Your task to perform on an android device: Go to eBay Image 0: 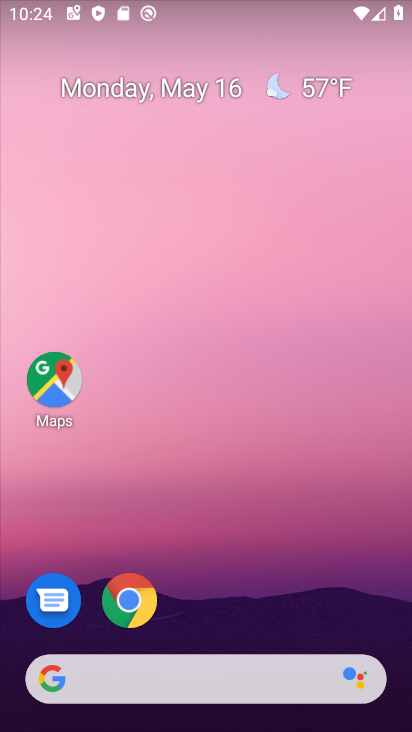
Step 0: drag from (222, 538) to (226, 89)
Your task to perform on an android device: Go to eBay Image 1: 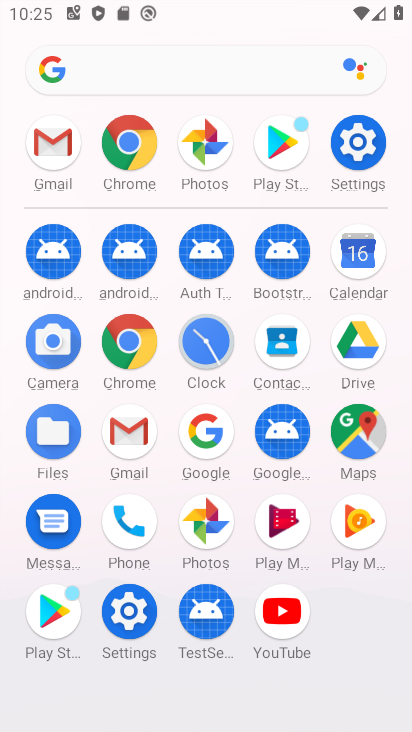
Step 1: click (102, 145)
Your task to perform on an android device: Go to eBay Image 2: 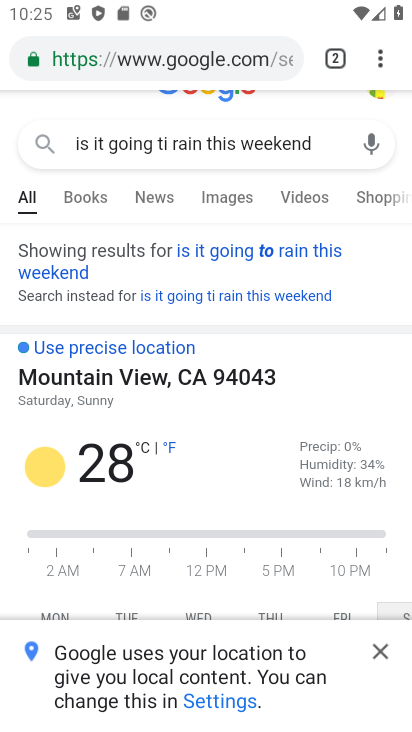
Step 2: click (246, 51)
Your task to perform on an android device: Go to eBay Image 3: 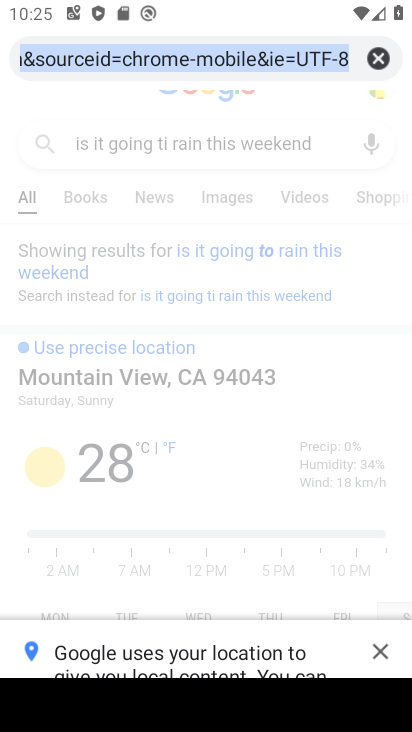
Step 3: click (371, 56)
Your task to perform on an android device: Go to eBay Image 4: 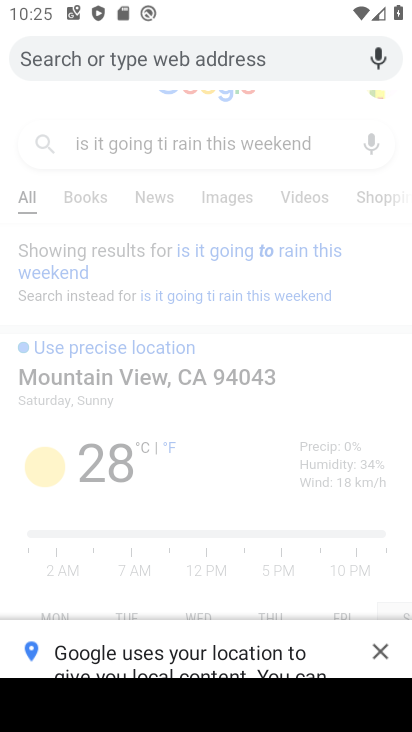
Step 4: type "ebay"
Your task to perform on an android device: Go to eBay Image 5: 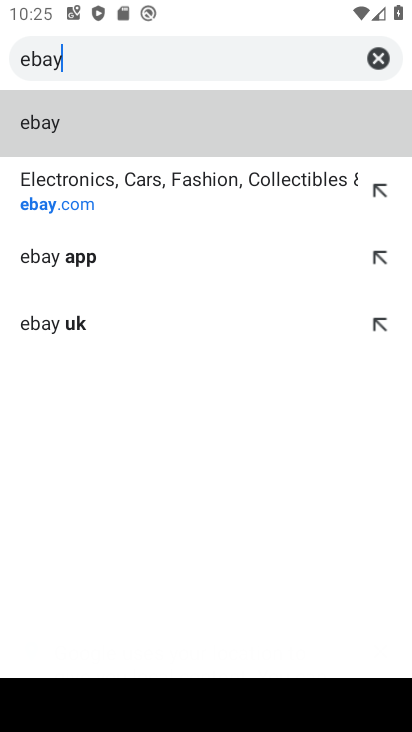
Step 5: click (92, 192)
Your task to perform on an android device: Go to eBay Image 6: 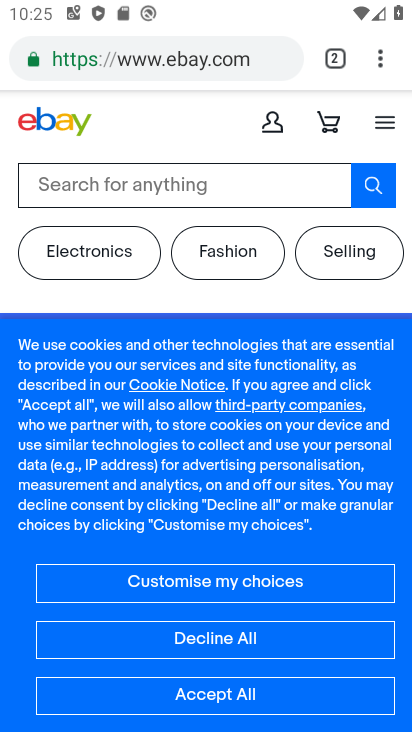
Step 6: task complete